Your task to perform on an android device: change your default location settings in chrome Image 0: 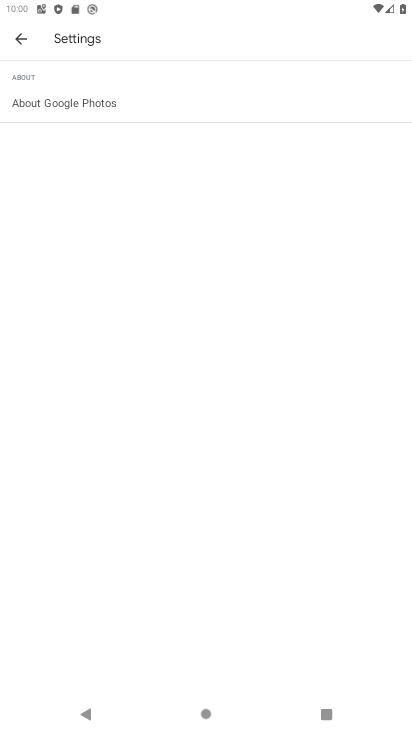
Step 0: press home button
Your task to perform on an android device: change your default location settings in chrome Image 1: 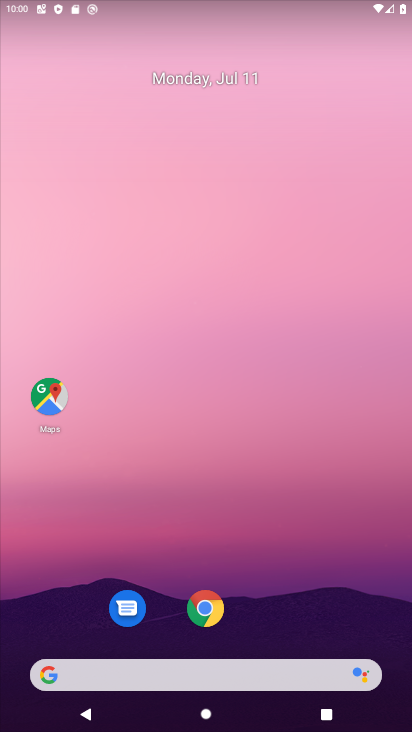
Step 1: click (203, 606)
Your task to perform on an android device: change your default location settings in chrome Image 2: 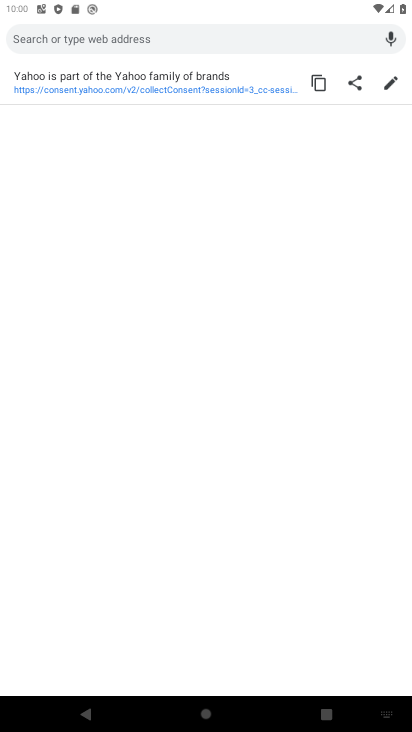
Step 2: click (149, 30)
Your task to perform on an android device: change your default location settings in chrome Image 3: 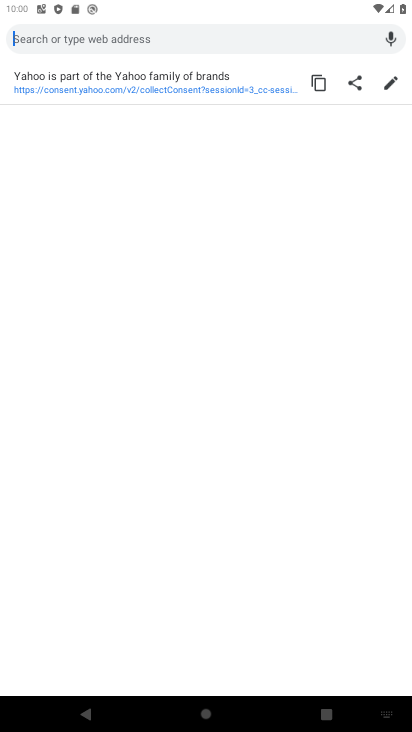
Step 3: click (123, 178)
Your task to perform on an android device: change your default location settings in chrome Image 4: 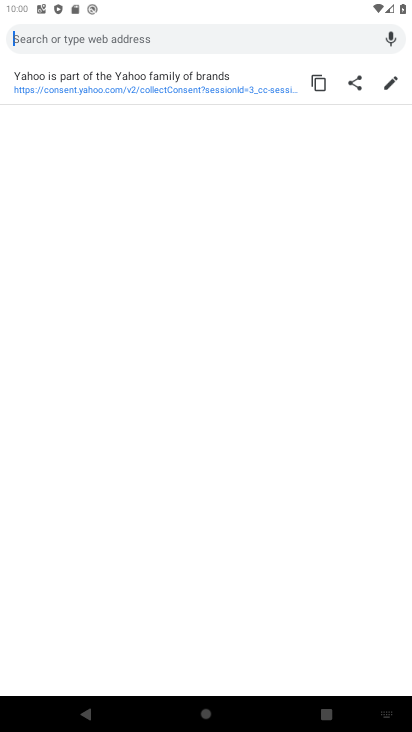
Step 4: click (327, 31)
Your task to perform on an android device: change your default location settings in chrome Image 5: 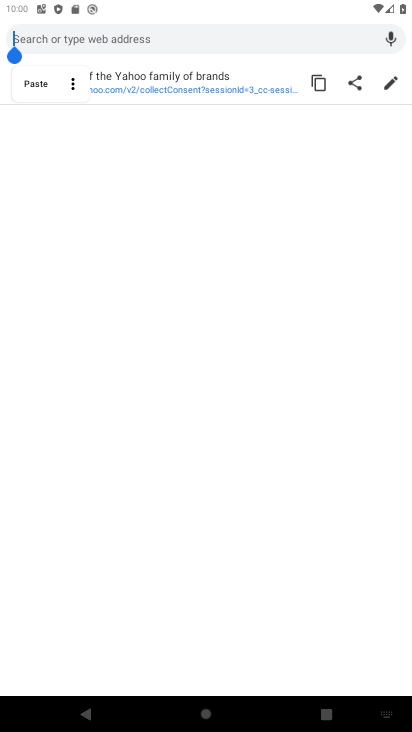
Step 5: task complete